Your task to perform on an android device: turn off sleep mode Image 0: 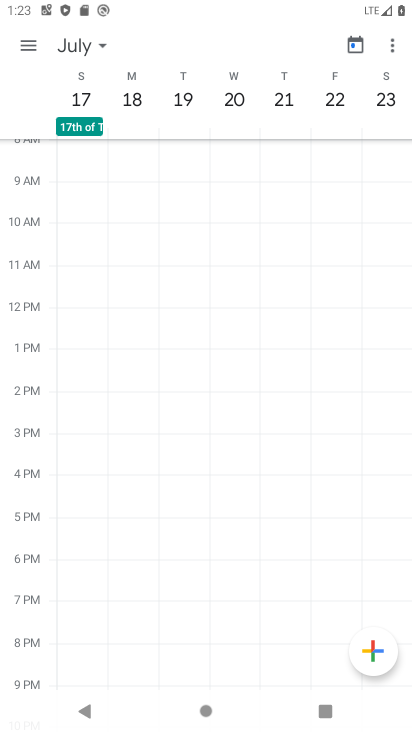
Step 0: press home button
Your task to perform on an android device: turn off sleep mode Image 1: 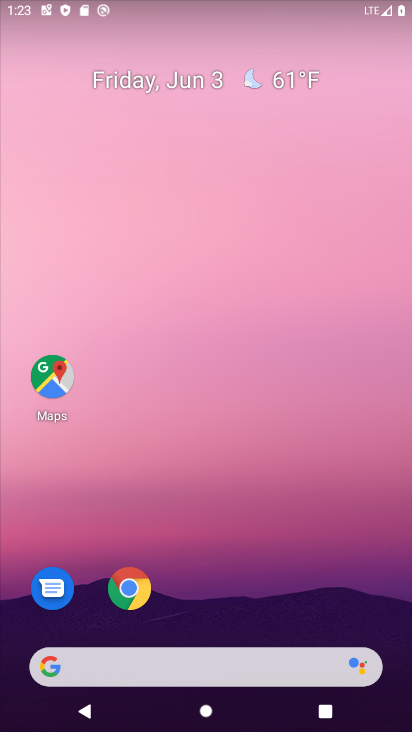
Step 1: drag from (261, 198) to (268, 116)
Your task to perform on an android device: turn off sleep mode Image 2: 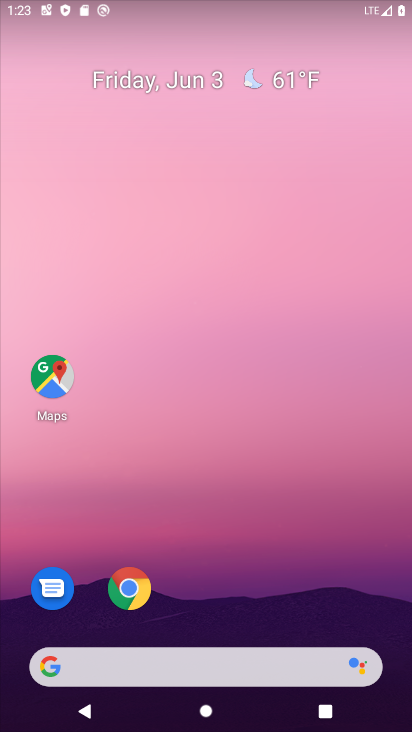
Step 2: drag from (230, 454) to (241, 58)
Your task to perform on an android device: turn off sleep mode Image 3: 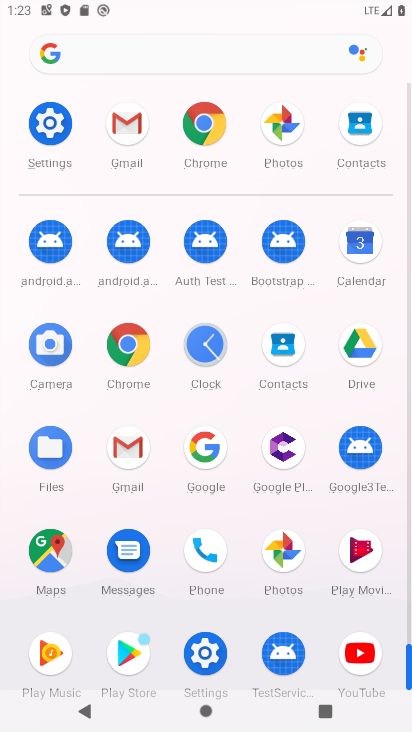
Step 3: drag from (157, 200) to (161, 10)
Your task to perform on an android device: turn off sleep mode Image 4: 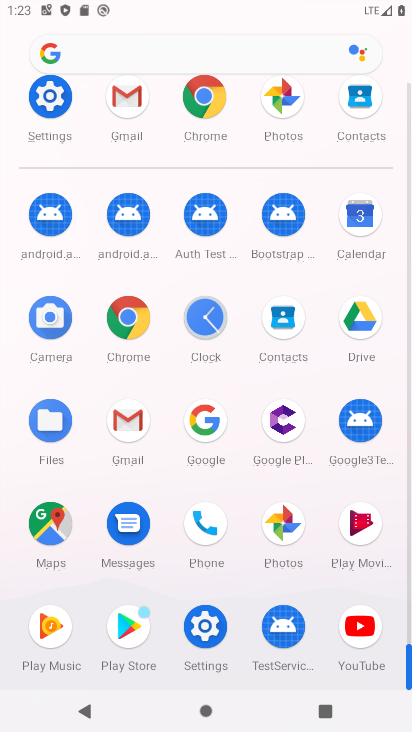
Step 4: click (207, 639)
Your task to perform on an android device: turn off sleep mode Image 5: 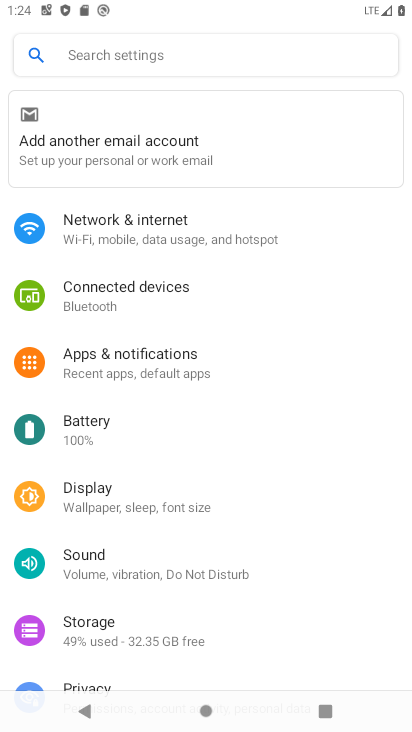
Step 5: task complete